Your task to perform on an android device: Do I have any events tomorrow? Image 0: 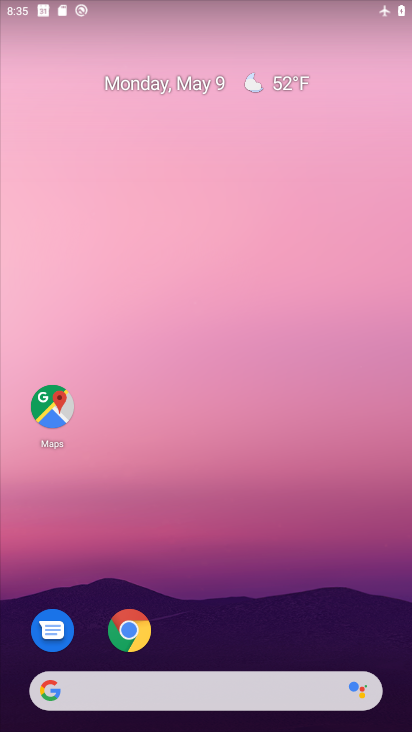
Step 0: drag from (236, 663) to (321, 66)
Your task to perform on an android device: Do I have any events tomorrow? Image 1: 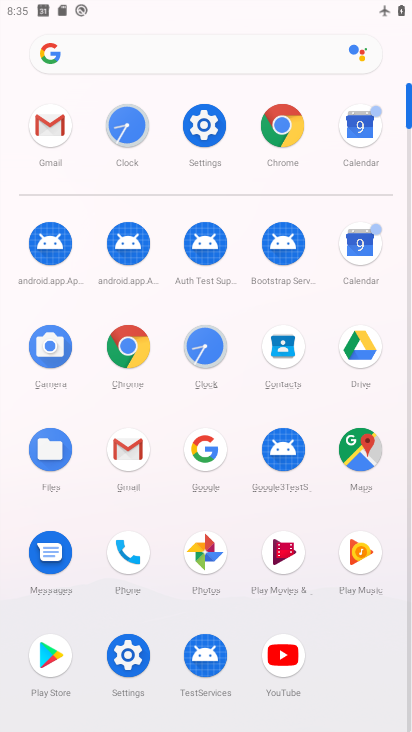
Step 1: click (364, 261)
Your task to perform on an android device: Do I have any events tomorrow? Image 2: 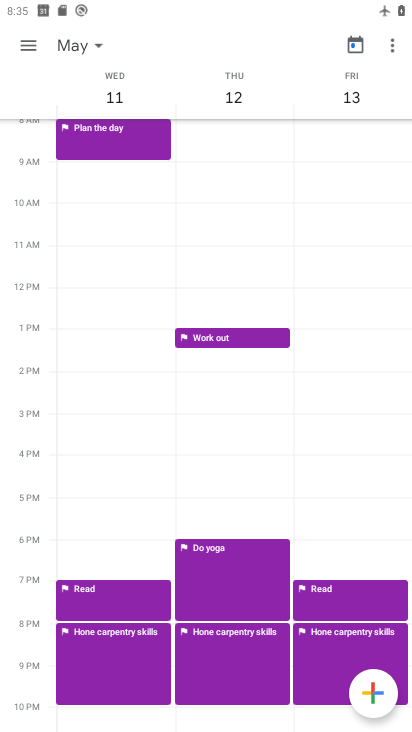
Step 2: click (39, 48)
Your task to perform on an android device: Do I have any events tomorrow? Image 3: 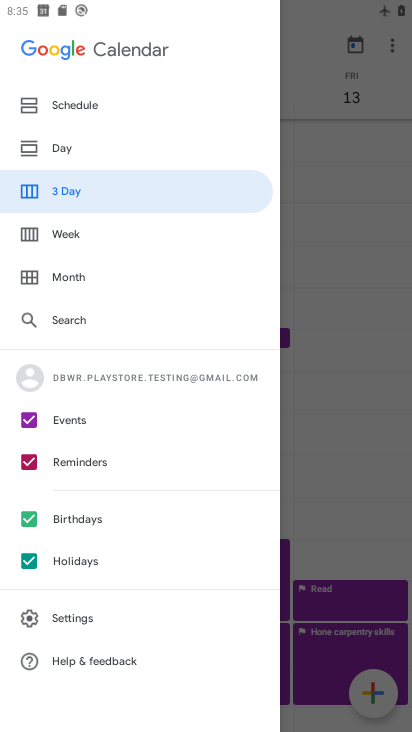
Step 3: click (74, 466)
Your task to perform on an android device: Do I have any events tomorrow? Image 4: 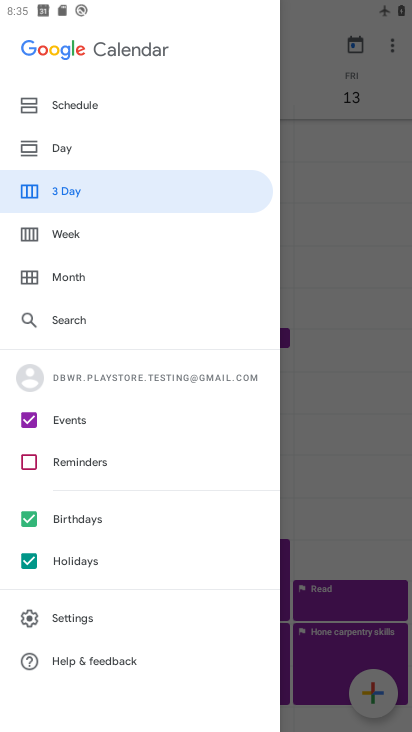
Step 4: click (51, 524)
Your task to perform on an android device: Do I have any events tomorrow? Image 5: 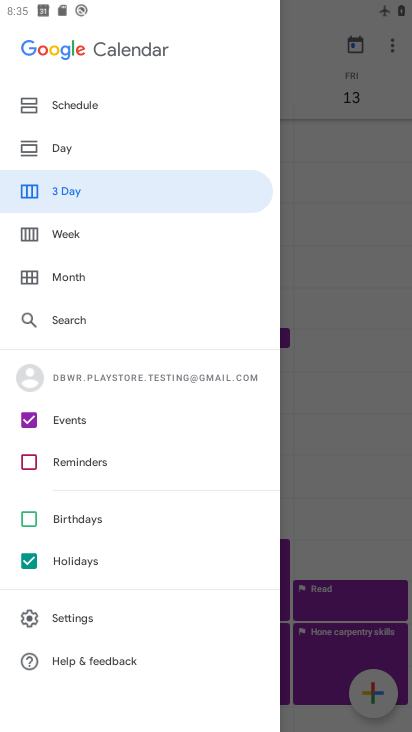
Step 5: click (54, 567)
Your task to perform on an android device: Do I have any events tomorrow? Image 6: 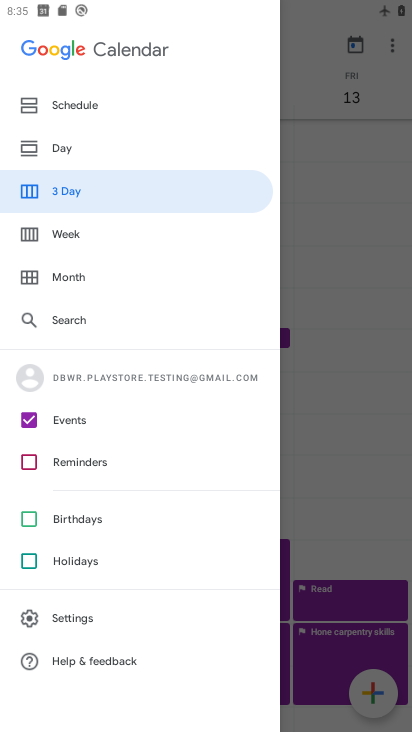
Step 6: click (338, 432)
Your task to perform on an android device: Do I have any events tomorrow? Image 7: 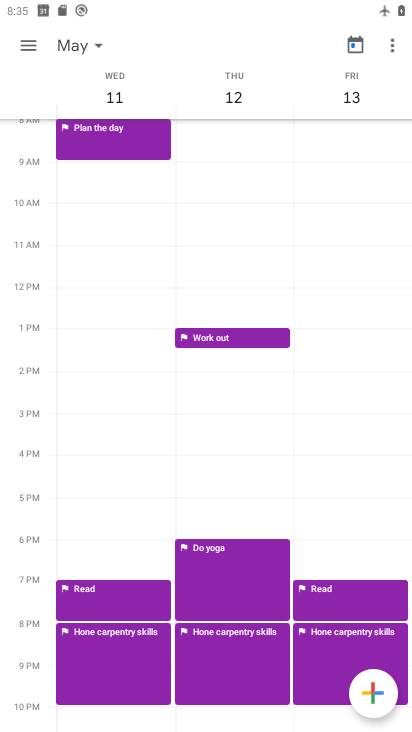
Step 7: task complete